Your task to perform on an android device: Go to privacy settings Image 0: 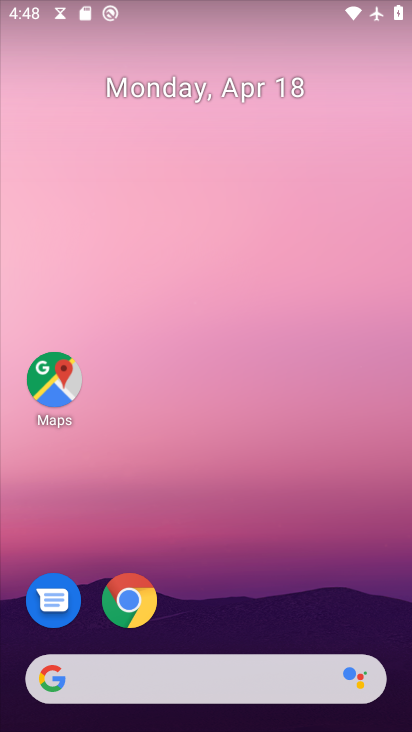
Step 0: drag from (244, 610) to (310, 3)
Your task to perform on an android device: Go to privacy settings Image 1: 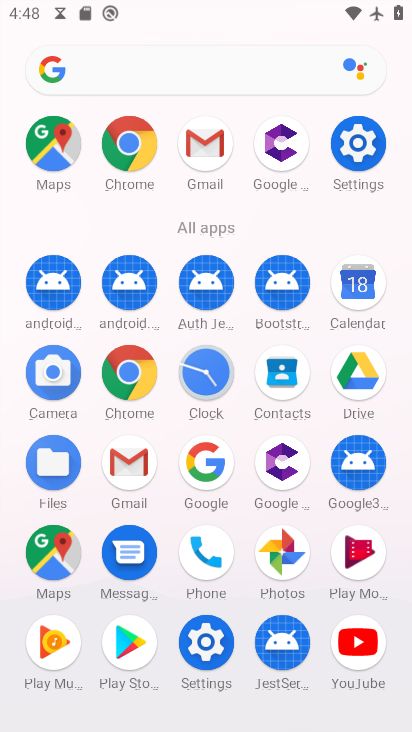
Step 1: click (372, 161)
Your task to perform on an android device: Go to privacy settings Image 2: 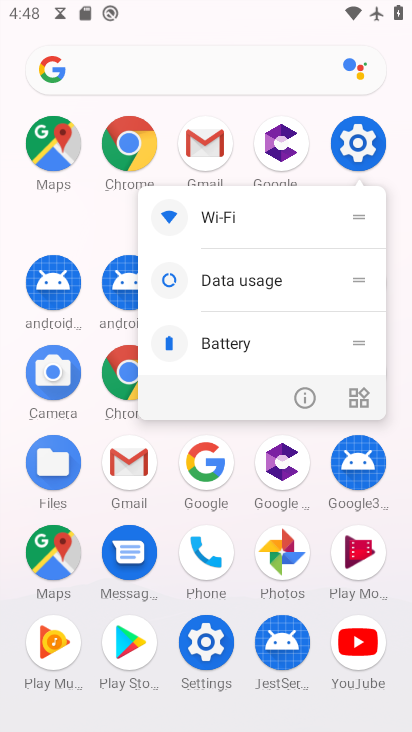
Step 2: click (353, 143)
Your task to perform on an android device: Go to privacy settings Image 3: 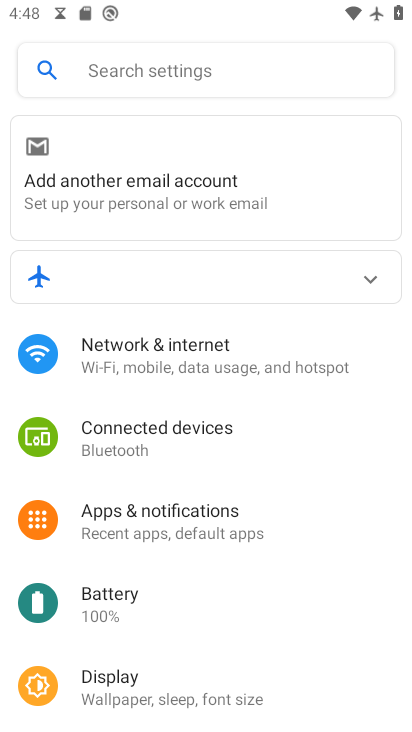
Step 3: drag from (171, 636) to (198, 423)
Your task to perform on an android device: Go to privacy settings Image 4: 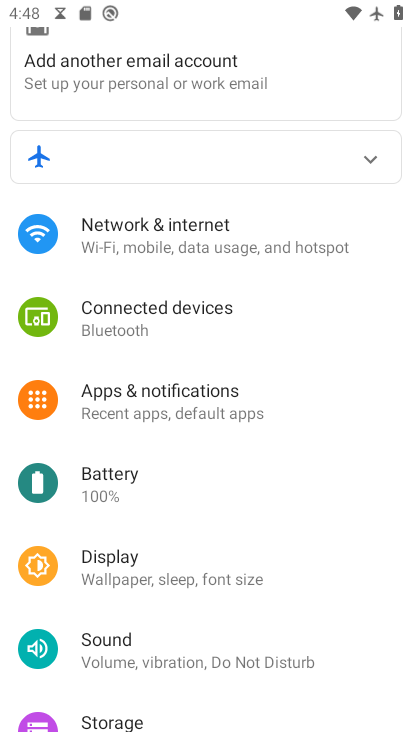
Step 4: drag from (145, 657) to (277, 9)
Your task to perform on an android device: Go to privacy settings Image 5: 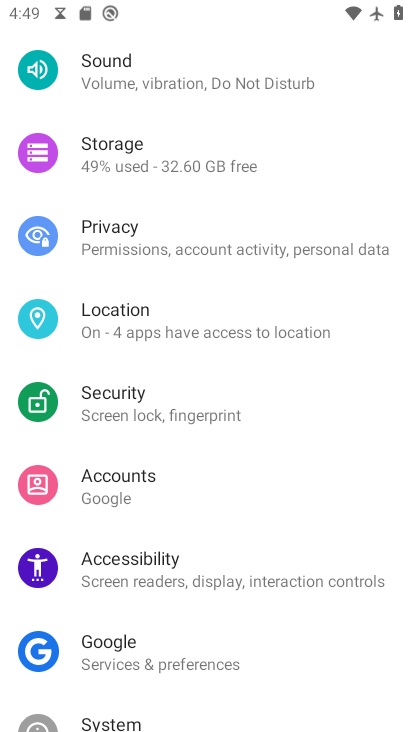
Step 5: click (156, 244)
Your task to perform on an android device: Go to privacy settings Image 6: 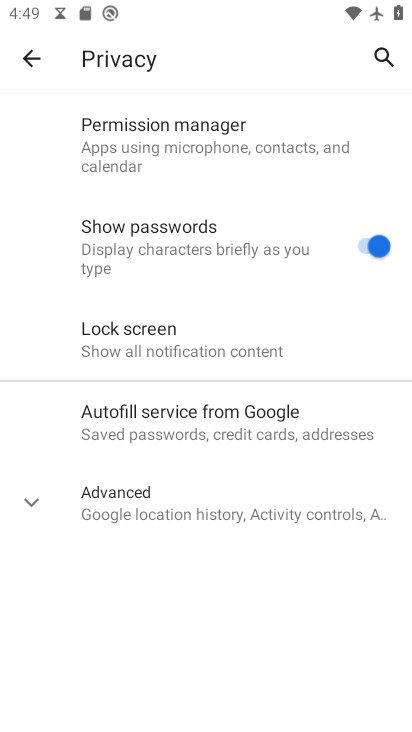
Step 6: task complete